Your task to perform on an android device: Open calendar and show me the first week of next month Image 0: 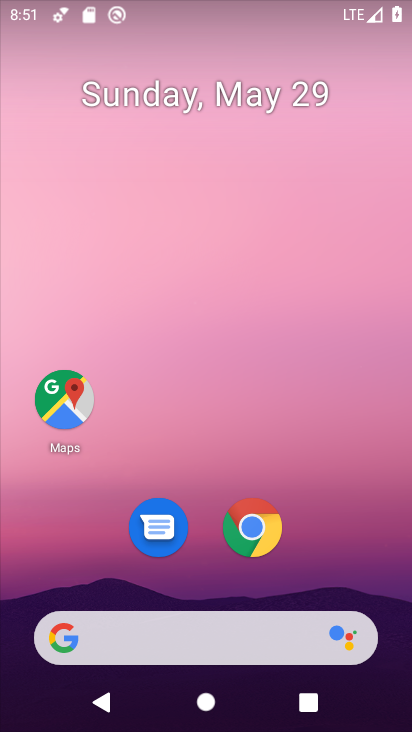
Step 0: press home button
Your task to perform on an android device: Open calendar and show me the first week of next month Image 1: 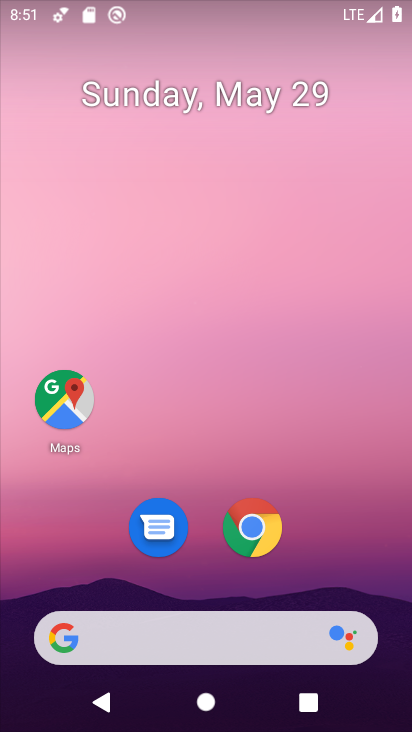
Step 1: drag from (198, 588) to (218, 79)
Your task to perform on an android device: Open calendar and show me the first week of next month Image 2: 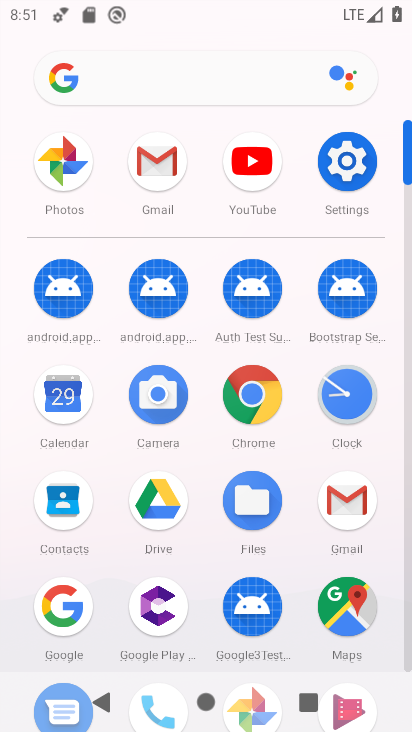
Step 2: click (62, 393)
Your task to perform on an android device: Open calendar and show me the first week of next month Image 3: 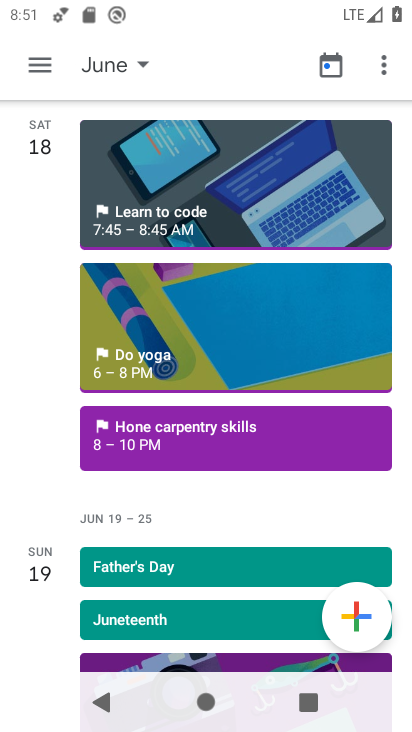
Step 3: click (45, 60)
Your task to perform on an android device: Open calendar and show me the first week of next month Image 4: 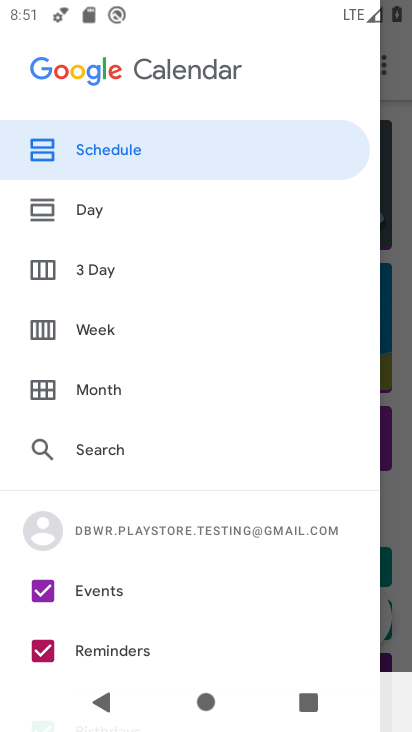
Step 4: click (65, 325)
Your task to perform on an android device: Open calendar and show me the first week of next month Image 5: 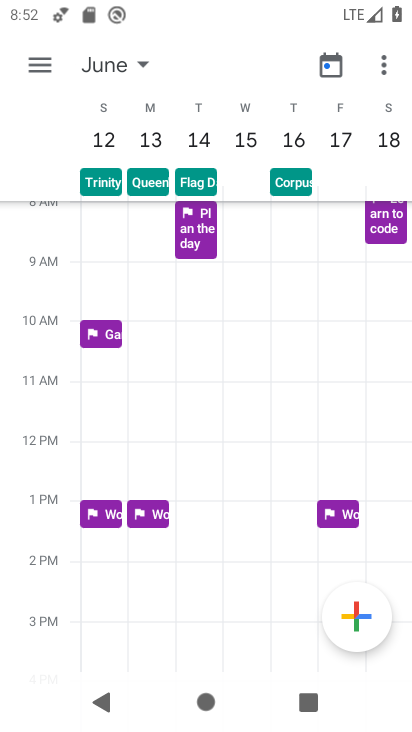
Step 5: drag from (107, 141) to (382, 156)
Your task to perform on an android device: Open calendar and show me the first week of next month Image 6: 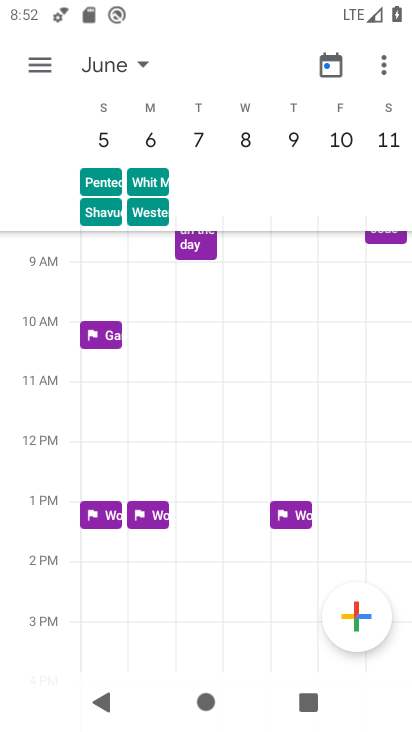
Step 6: drag from (95, 143) to (352, 151)
Your task to perform on an android device: Open calendar and show me the first week of next month Image 7: 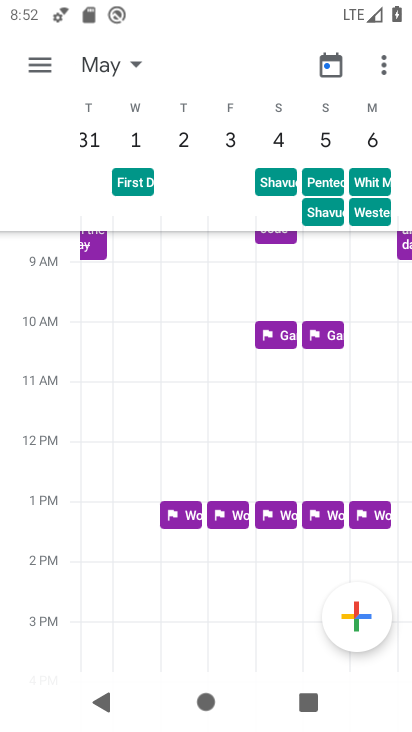
Step 7: click (389, 150)
Your task to perform on an android device: Open calendar and show me the first week of next month Image 8: 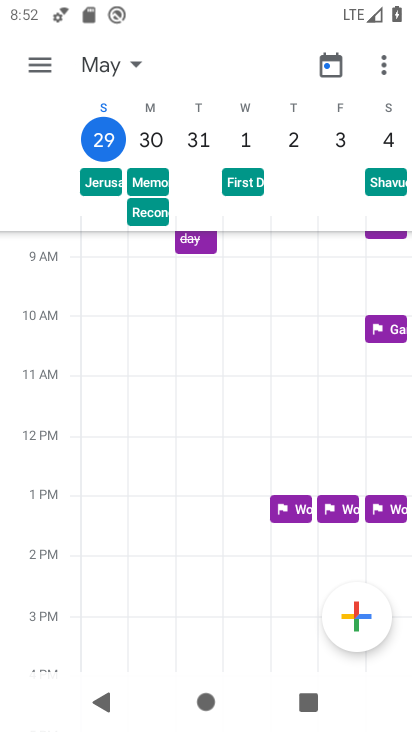
Step 8: click (241, 139)
Your task to perform on an android device: Open calendar and show me the first week of next month Image 9: 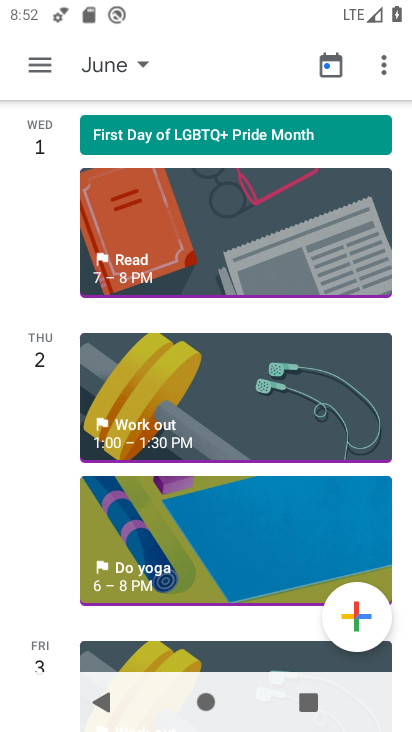
Step 9: click (32, 534)
Your task to perform on an android device: Open calendar and show me the first week of next month Image 10: 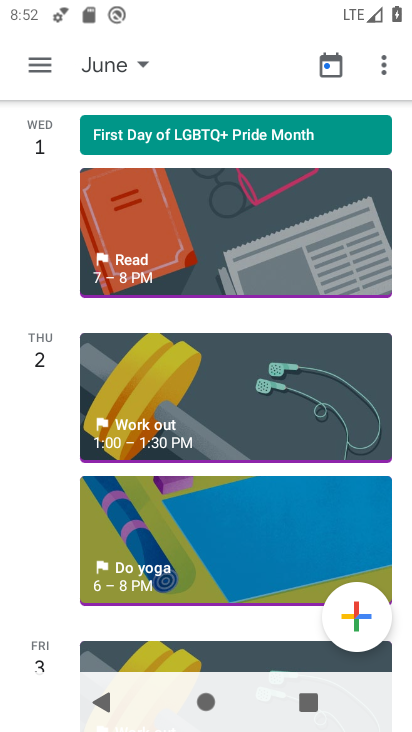
Step 10: task complete